Your task to perform on an android device: See recent photos Image 0: 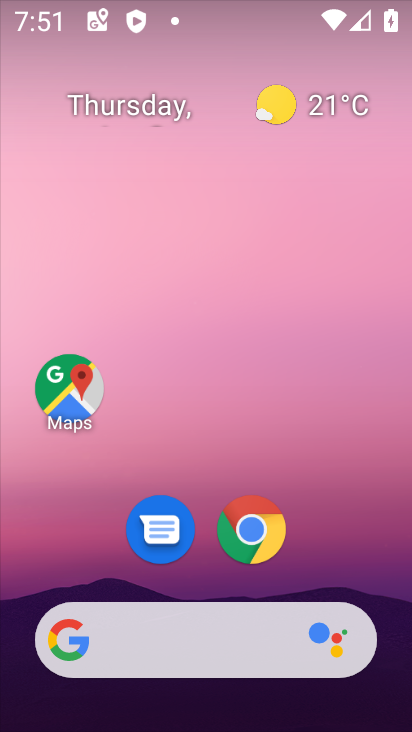
Step 0: drag from (288, 710) to (234, 40)
Your task to perform on an android device: See recent photos Image 1: 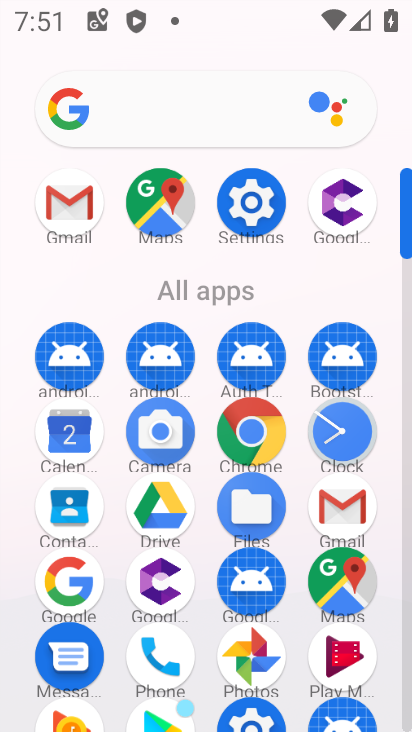
Step 1: click (252, 657)
Your task to perform on an android device: See recent photos Image 2: 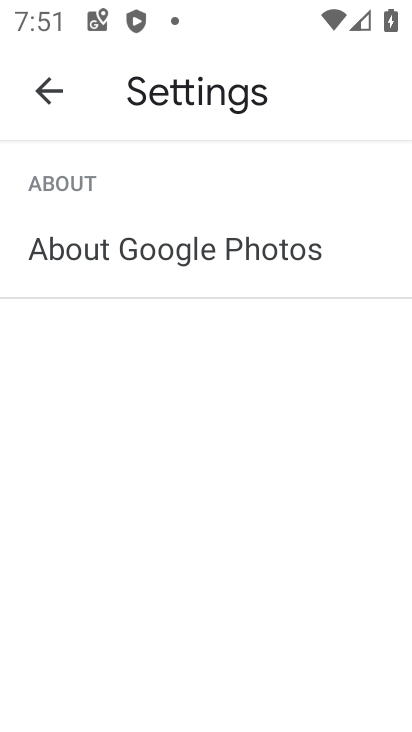
Step 2: click (53, 94)
Your task to perform on an android device: See recent photos Image 3: 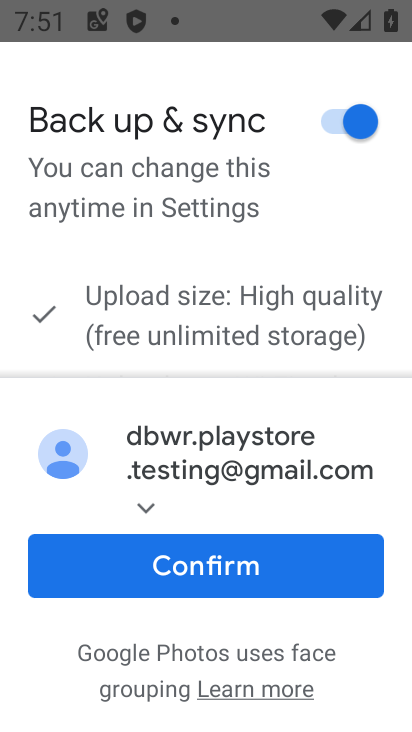
Step 3: click (238, 573)
Your task to perform on an android device: See recent photos Image 4: 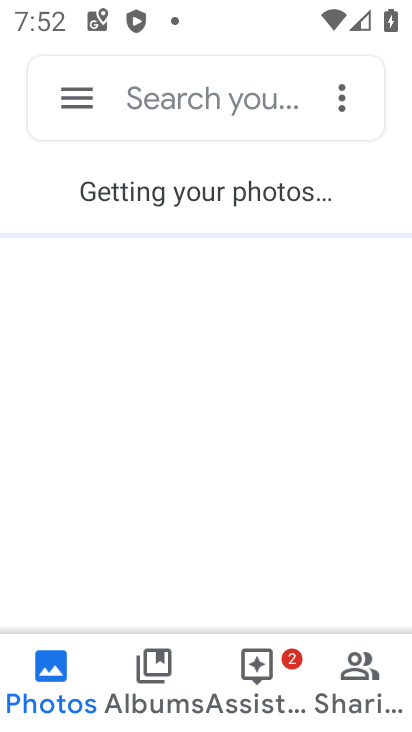
Step 4: task complete